Your task to perform on an android device: turn notification dots off Image 0: 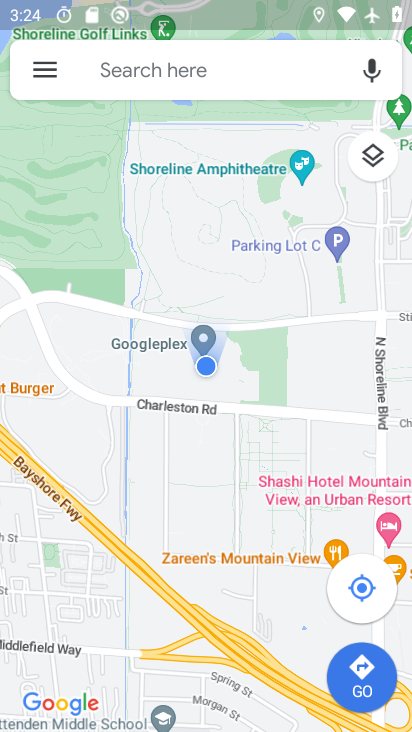
Step 0: press back button
Your task to perform on an android device: turn notification dots off Image 1: 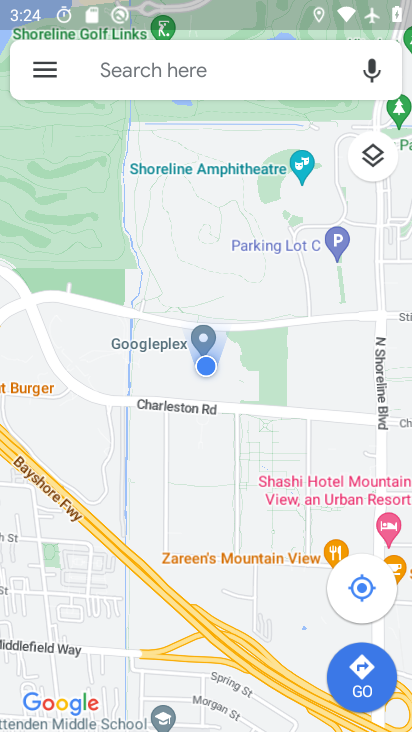
Step 1: press back button
Your task to perform on an android device: turn notification dots off Image 2: 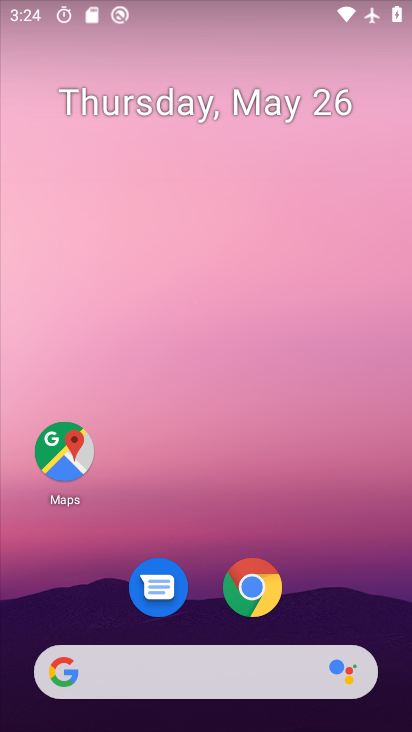
Step 2: drag from (281, 601) to (188, 14)
Your task to perform on an android device: turn notification dots off Image 3: 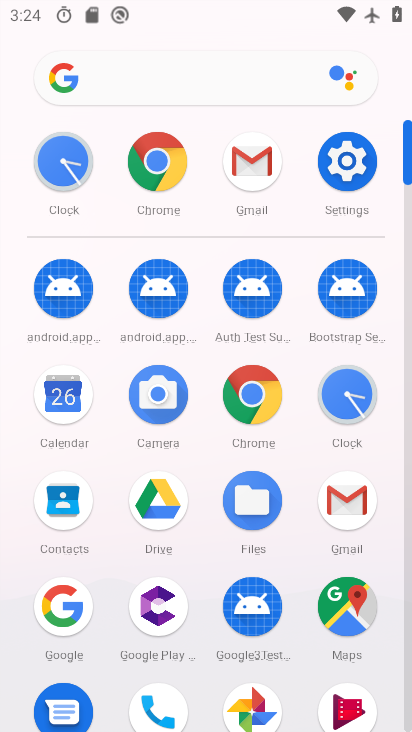
Step 3: click (343, 167)
Your task to perform on an android device: turn notification dots off Image 4: 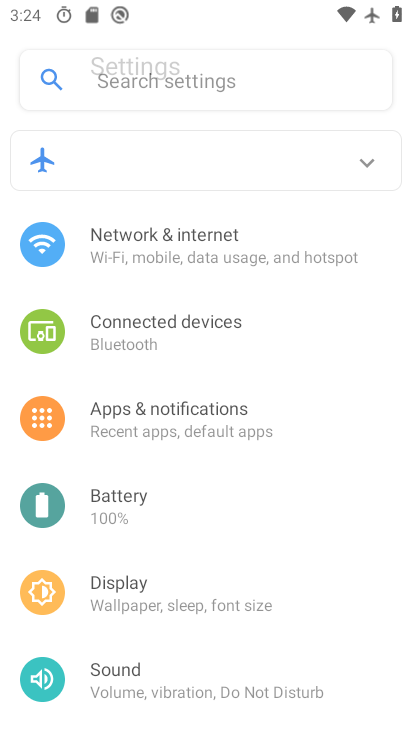
Step 4: click (343, 167)
Your task to perform on an android device: turn notification dots off Image 5: 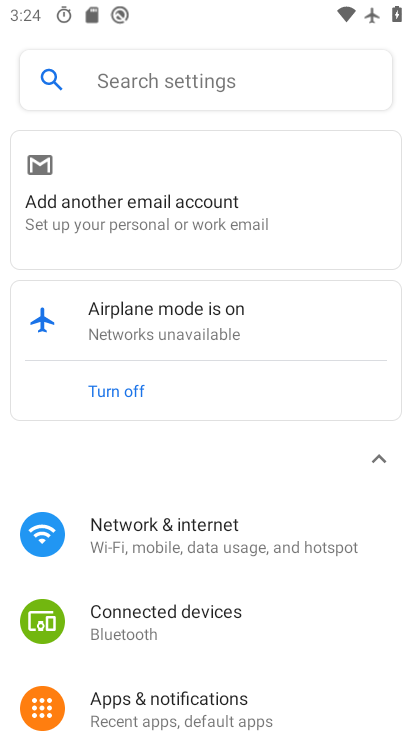
Step 5: drag from (232, 555) to (184, 376)
Your task to perform on an android device: turn notification dots off Image 6: 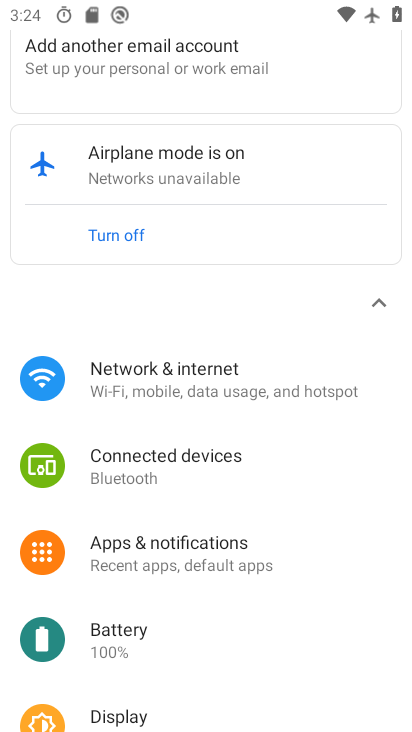
Step 6: drag from (194, 570) to (191, 456)
Your task to perform on an android device: turn notification dots off Image 7: 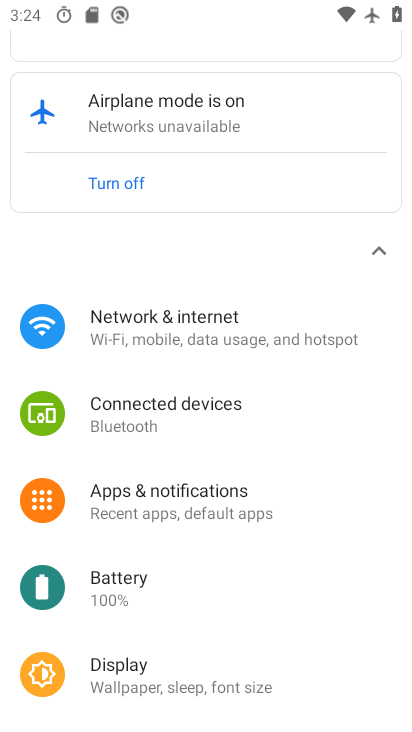
Step 7: click (150, 500)
Your task to perform on an android device: turn notification dots off Image 8: 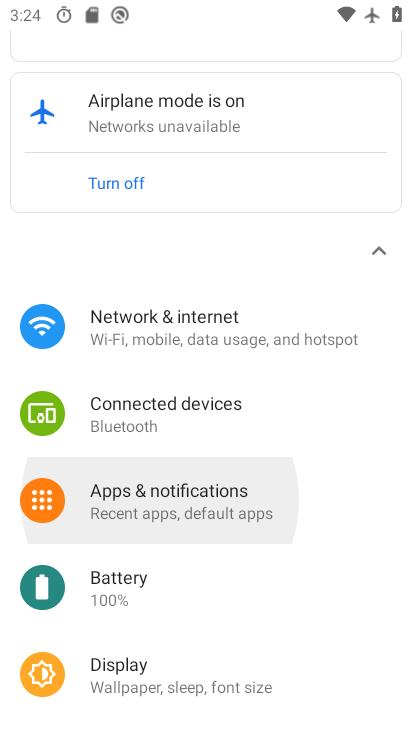
Step 8: click (151, 499)
Your task to perform on an android device: turn notification dots off Image 9: 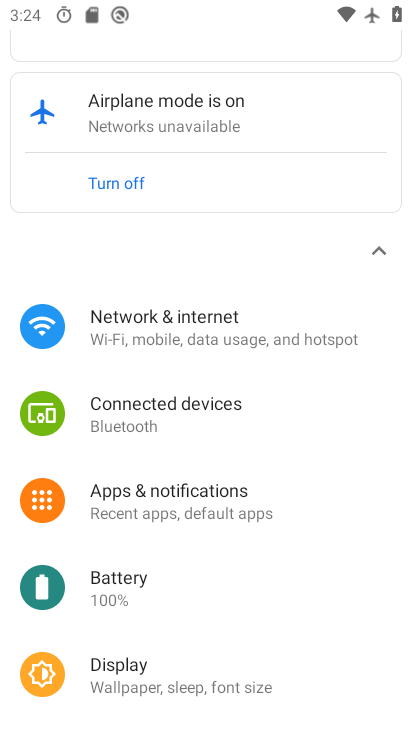
Step 9: click (155, 506)
Your task to perform on an android device: turn notification dots off Image 10: 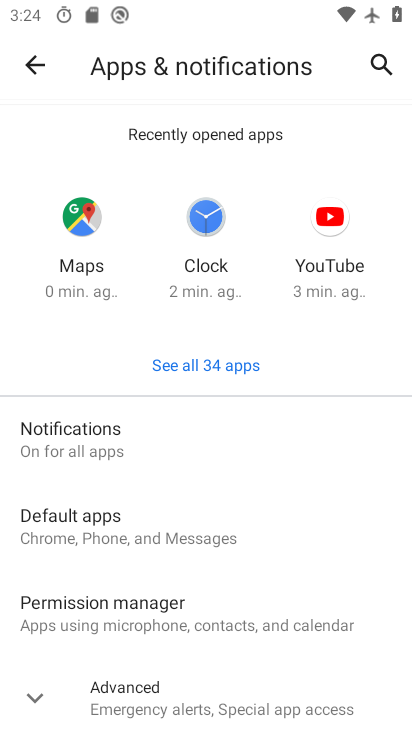
Step 10: click (41, 418)
Your task to perform on an android device: turn notification dots off Image 11: 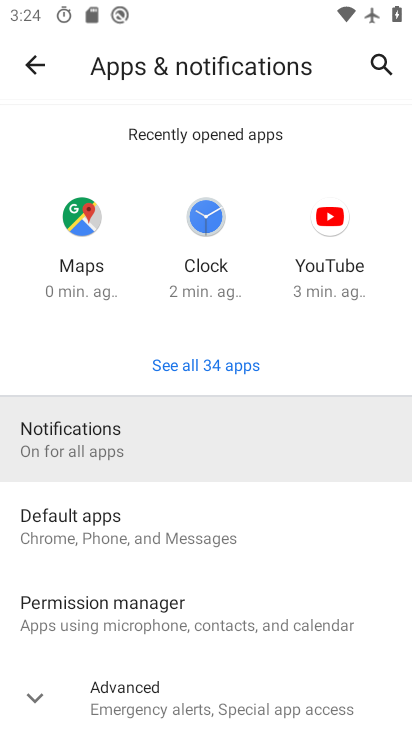
Step 11: click (58, 438)
Your task to perform on an android device: turn notification dots off Image 12: 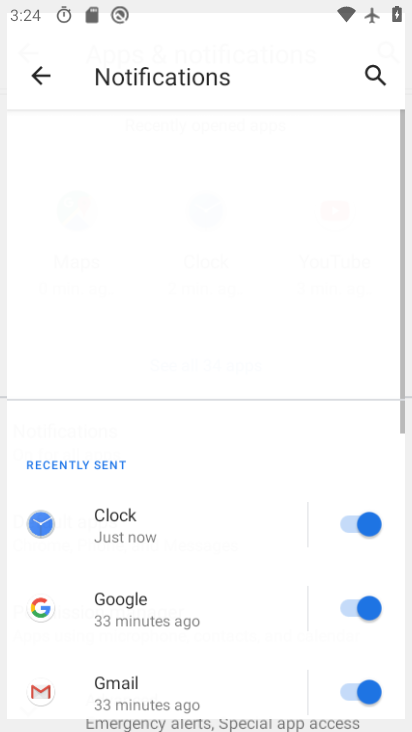
Step 12: click (62, 450)
Your task to perform on an android device: turn notification dots off Image 13: 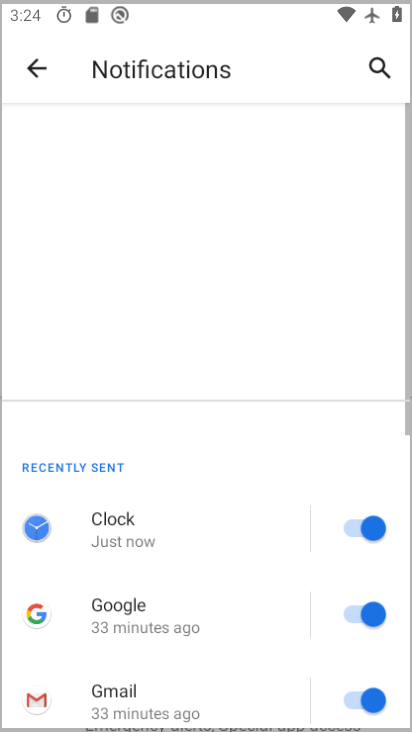
Step 13: click (61, 451)
Your task to perform on an android device: turn notification dots off Image 14: 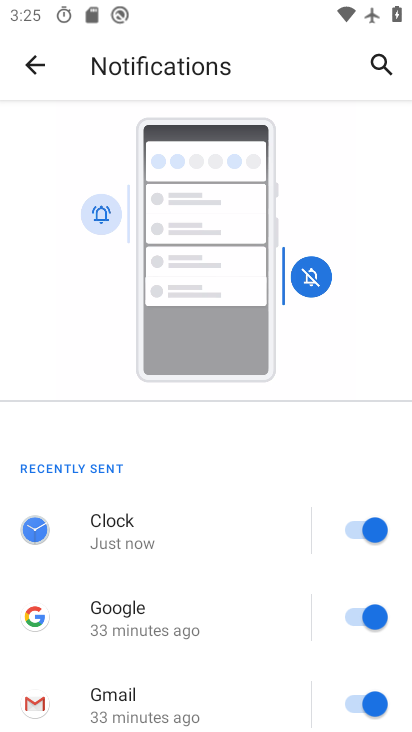
Step 14: click (34, 59)
Your task to perform on an android device: turn notification dots off Image 15: 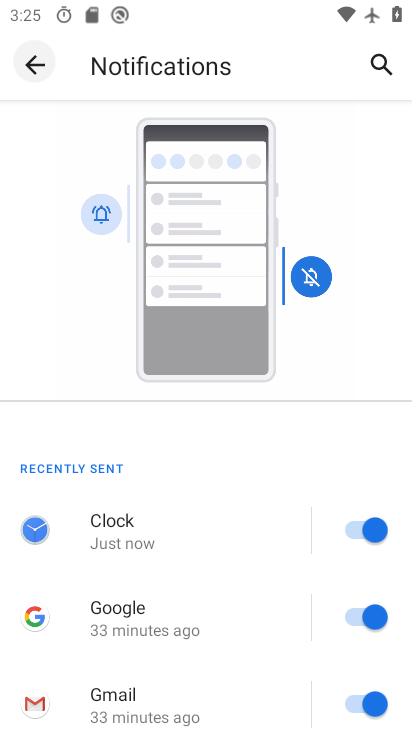
Step 15: click (35, 62)
Your task to perform on an android device: turn notification dots off Image 16: 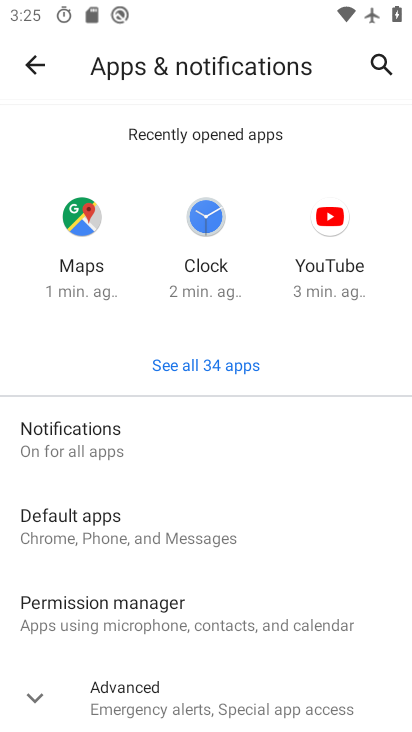
Step 16: click (37, 70)
Your task to perform on an android device: turn notification dots off Image 17: 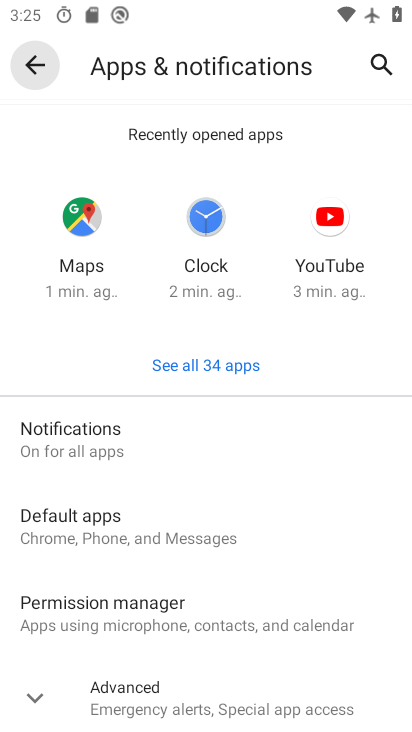
Step 17: click (37, 70)
Your task to perform on an android device: turn notification dots off Image 18: 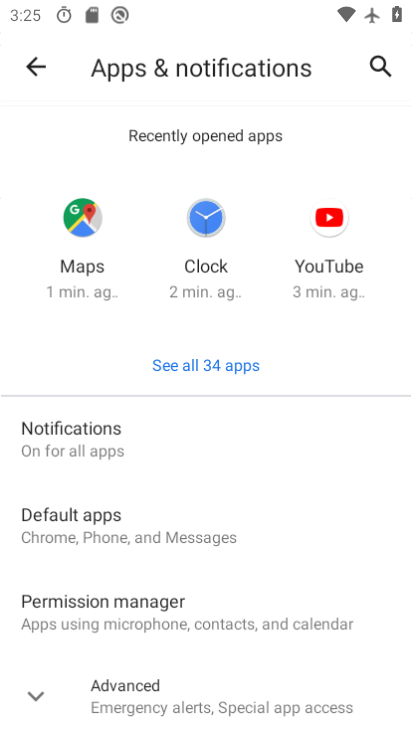
Step 18: click (38, 71)
Your task to perform on an android device: turn notification dots off Image 19: 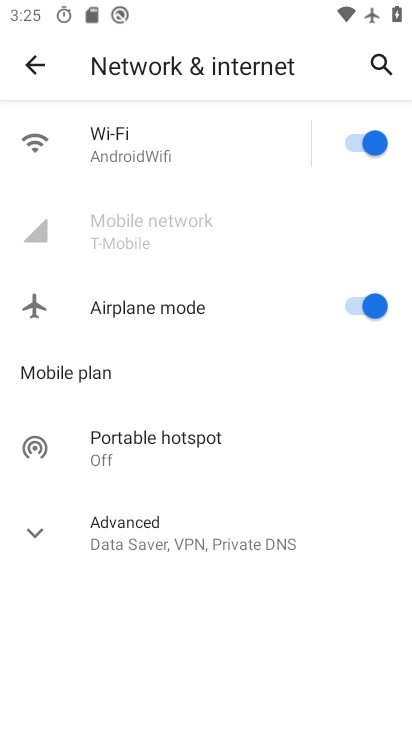
Step 19: click (37, 63)
Your task to perform on an android device: turn notification dots off Image 20: 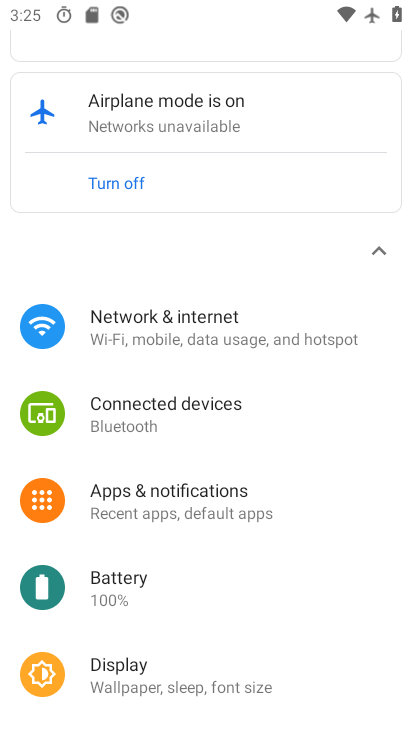
Step 20: click (168, 336)
Your task to perform on an android device: turn notification dots off Image 21: 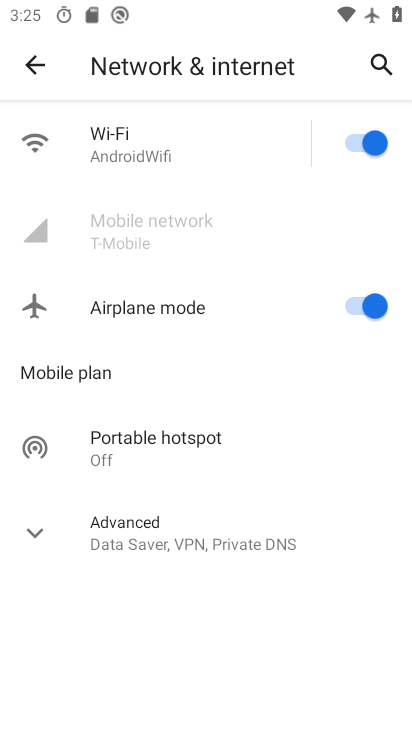
Step 21: click (38, 61)
Your task to perform on an android device: turn notification dots off Image 22: 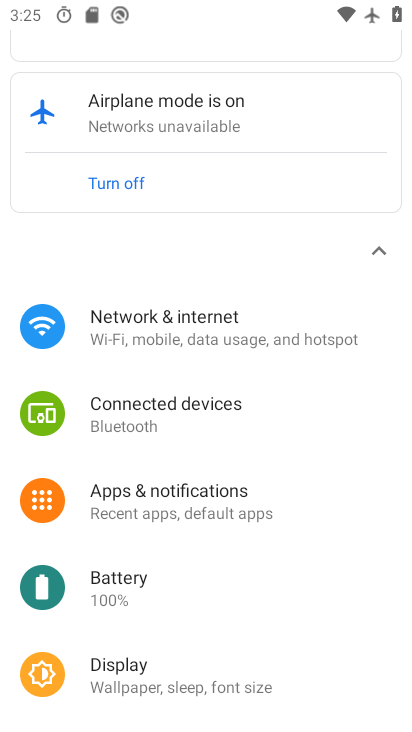
Step 22: click (152, 512)
Your task to perform on an android device: turn notification dots off Image 23: 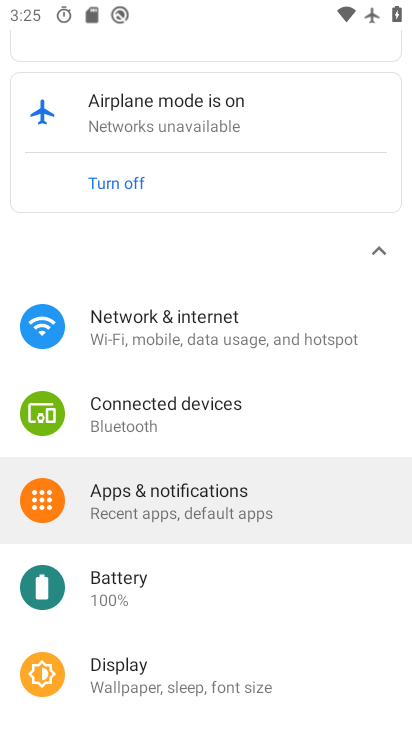
Step 23: click (157, 501)
Your task to perform on an android device: turn notification dots off Image 24: 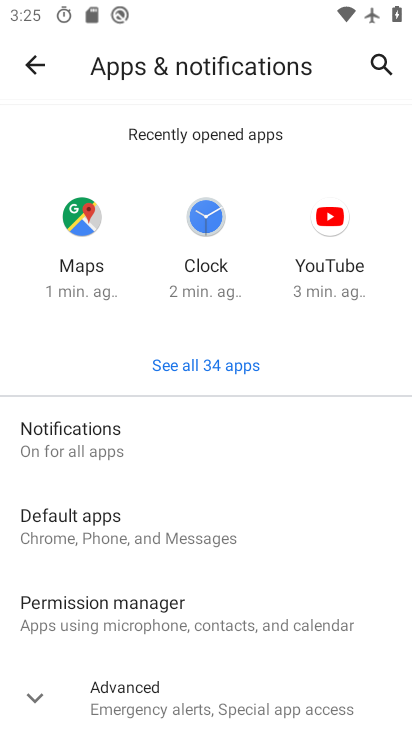
Step 24: click (82, 446)
Your task to perform on an android device: turn notification dots off Image 25: 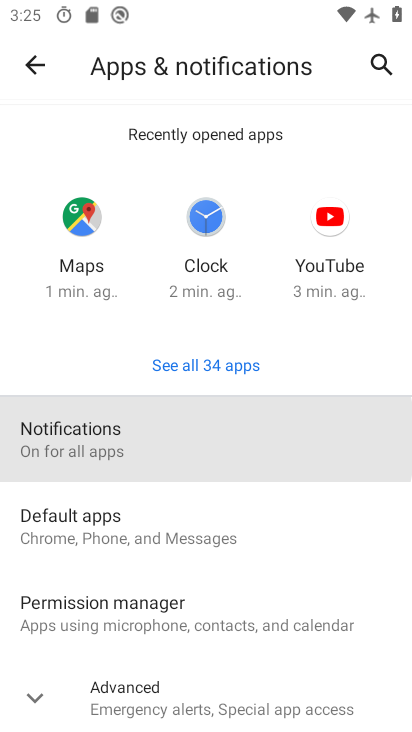
Step 25: click (83, 444)
Your task to perform on an android device: turn notification dots off Image 26: 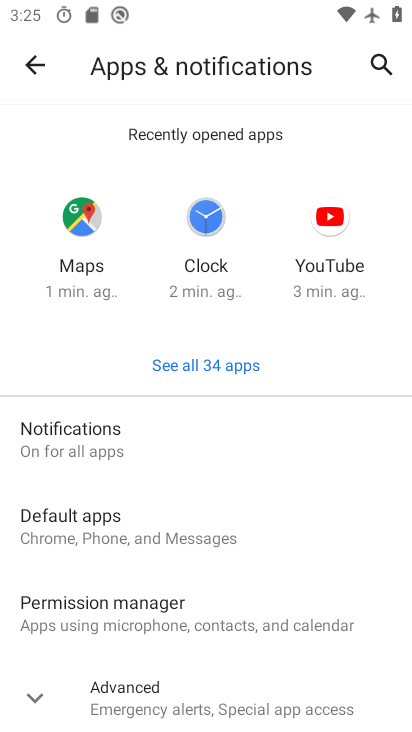
Step 26: click (84, 440)
Your task to perform on an android device: turn notification dots off Image 27: 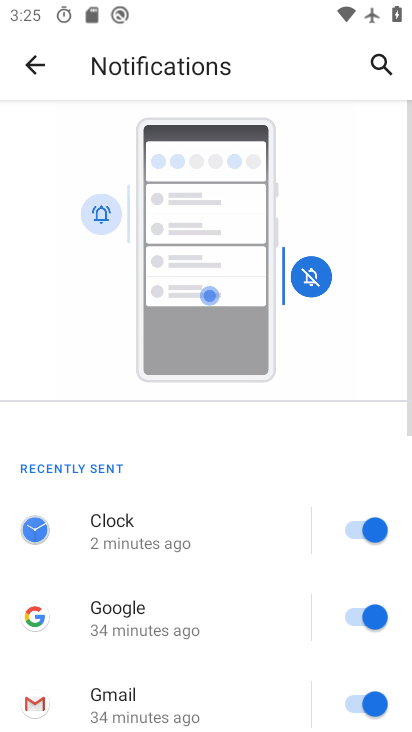
Step 27: drag from (269, 610) to (205, 188)
Your task to perform on an android device: turn notification dots off Image 28: 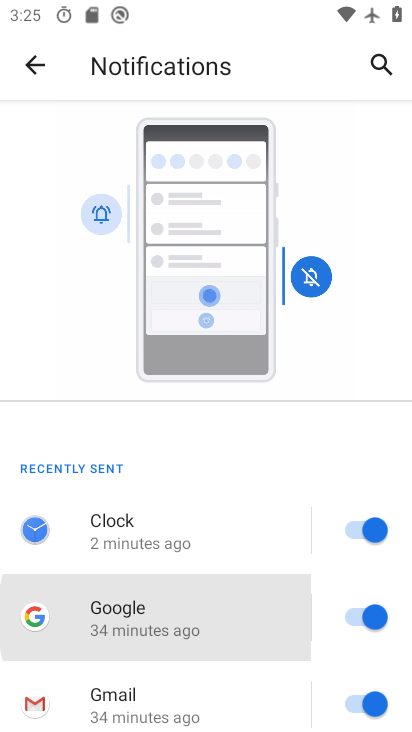
Step 28: drag from (158, 427) to (120, 92)
Your task to perform on an android device: turn notification dots off Image 29: 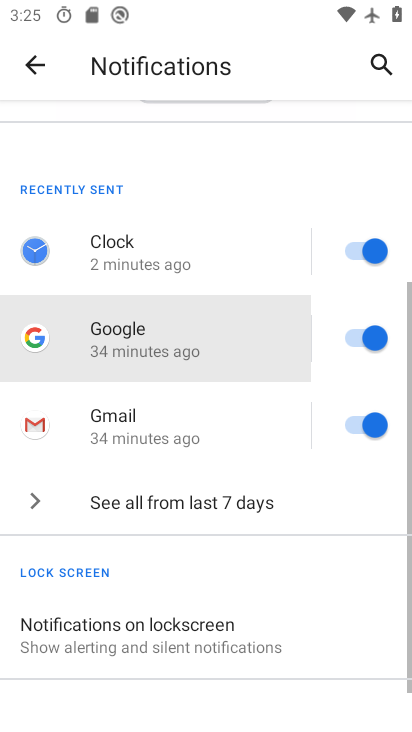
Step 29: drag from (191, 450) to (161, 159)
Your task to perform on an android device: turn notification dots off Image 30: 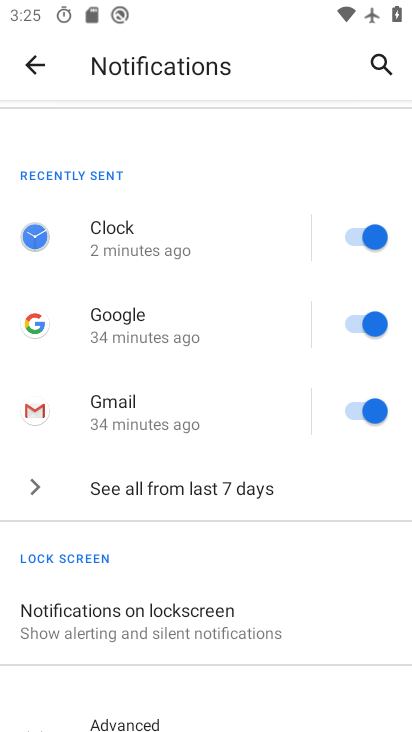
Step 30: drag from (180, 538) to (165, 80)
Your task to perform on an android device: turn notification dots off Image 31: 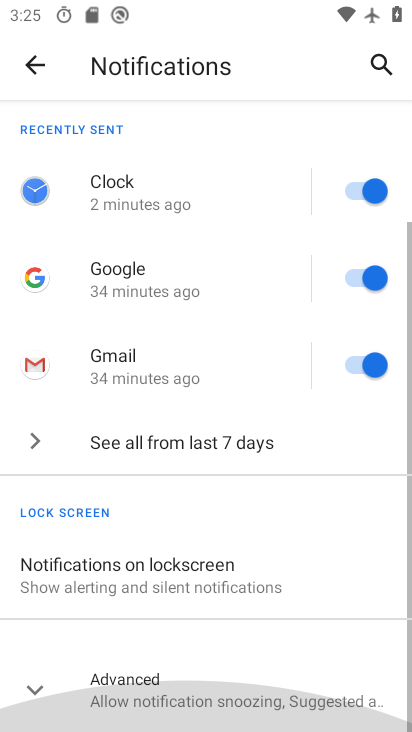
Step 31: drag from (181, 443) to (184, 97)
Your task to perform on an android device: turn notification dots off Image 32: 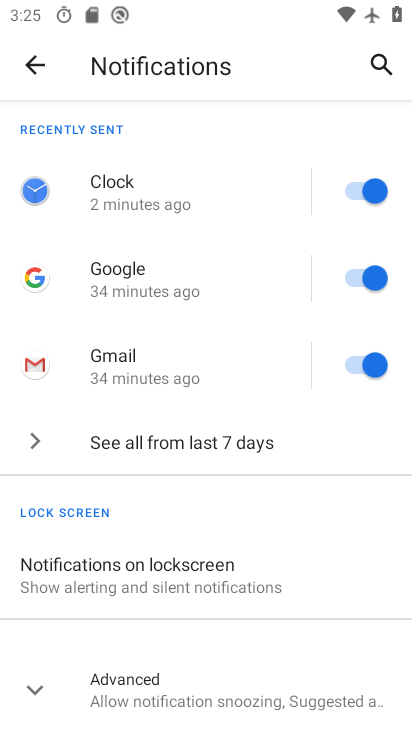
Step 32: click (143, 707)
Your task to perform on an android device: turn notification dots off Image 33: 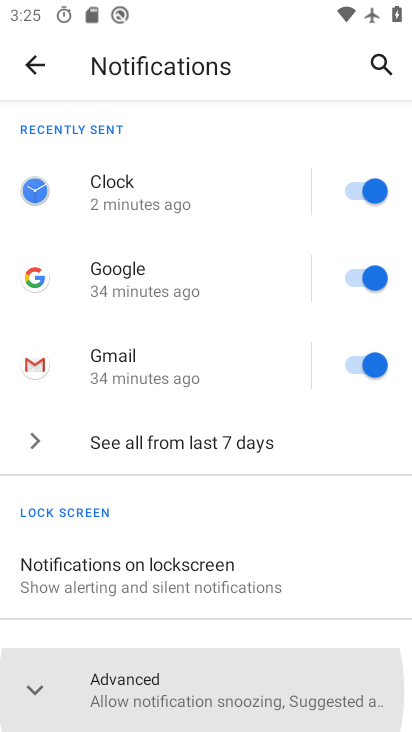
Step 33: click (142, 687)
Your task to perform on an android device: turn notification dots off Image 34: 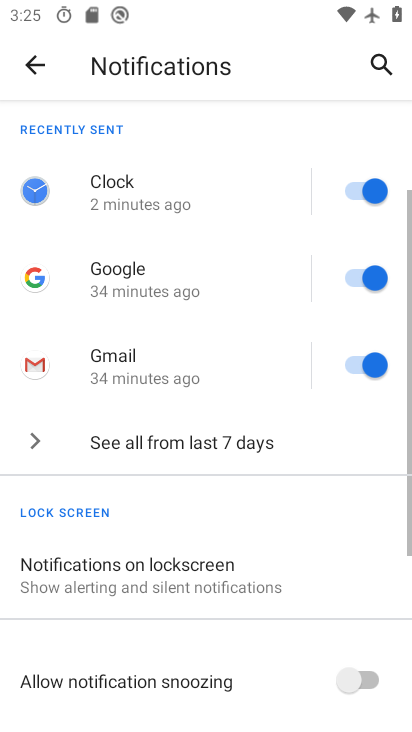
Step 34: click (145, 684)
Your task to perform on an android device: turn notification dots off Image 35: 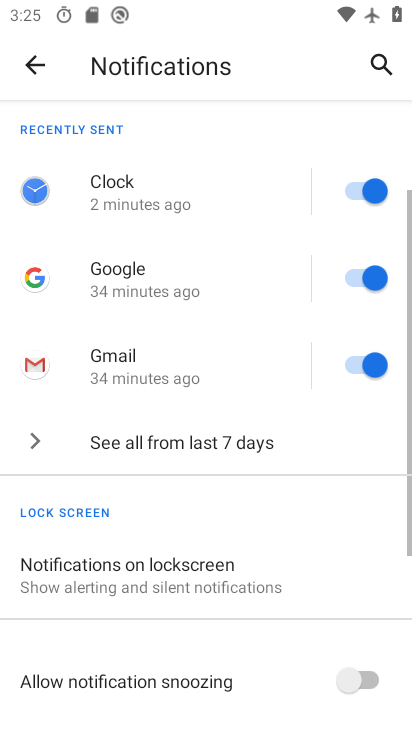
Step 35: click (164, 718)
Your task to perform on an android device: turn notification dots off Image 36: 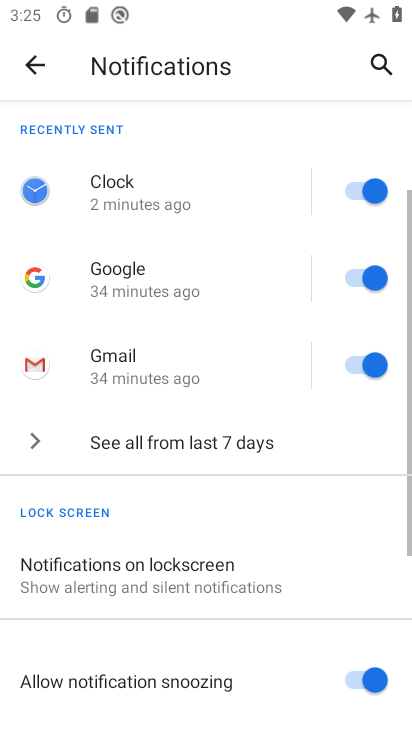
Step 36: drag from (260, 554) to (200, 72)
Your task to perform on an android device: turn notification dots off Image 37: 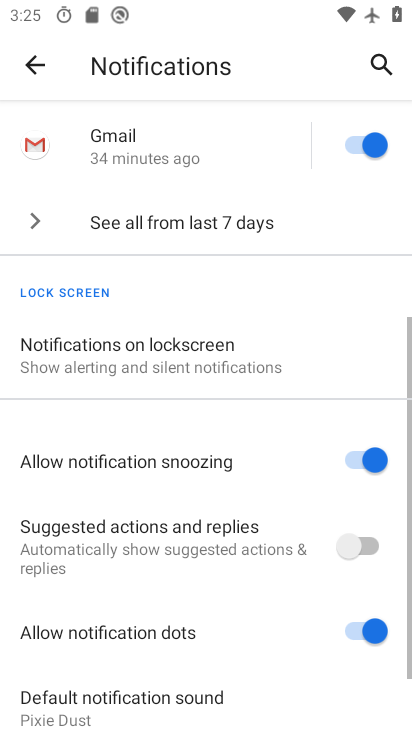
Step 37: drag from (239, 526) to (219, 12)
Your task to perform on an android device: turn notification dots off Image 38: 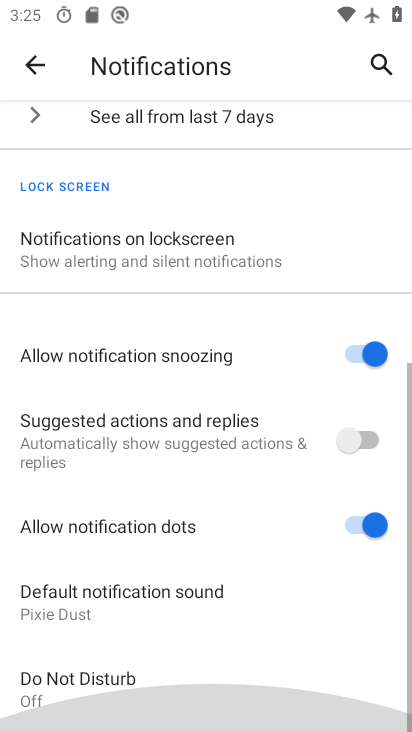
Step 38: drag from (213, 517) to (222, 3)
Your task to perform on an android device: turn notification dots off Image 39: 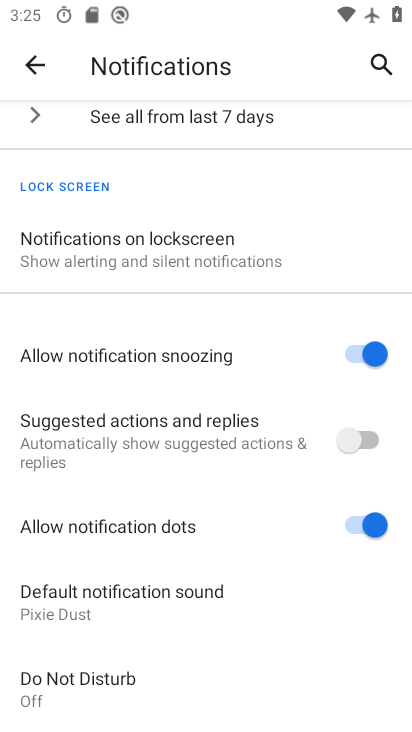
Step 39: click (372, 527)
Your task to perform on an android device: turn notification dots off Image 40: 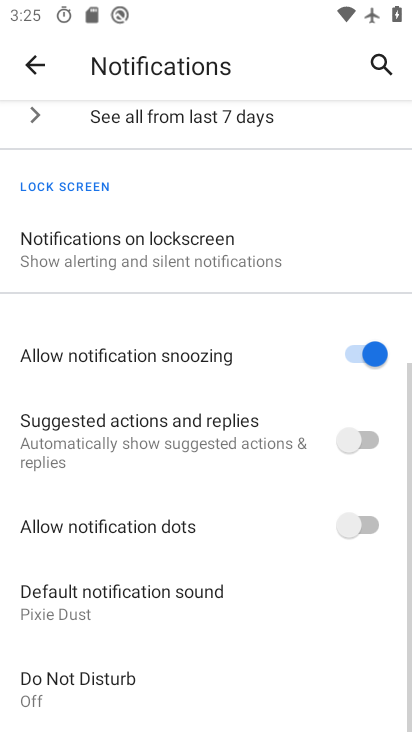
Step 40: task complete